Your task to perform on an android device: Search for the best rated headphones on amazon.com Image 0: 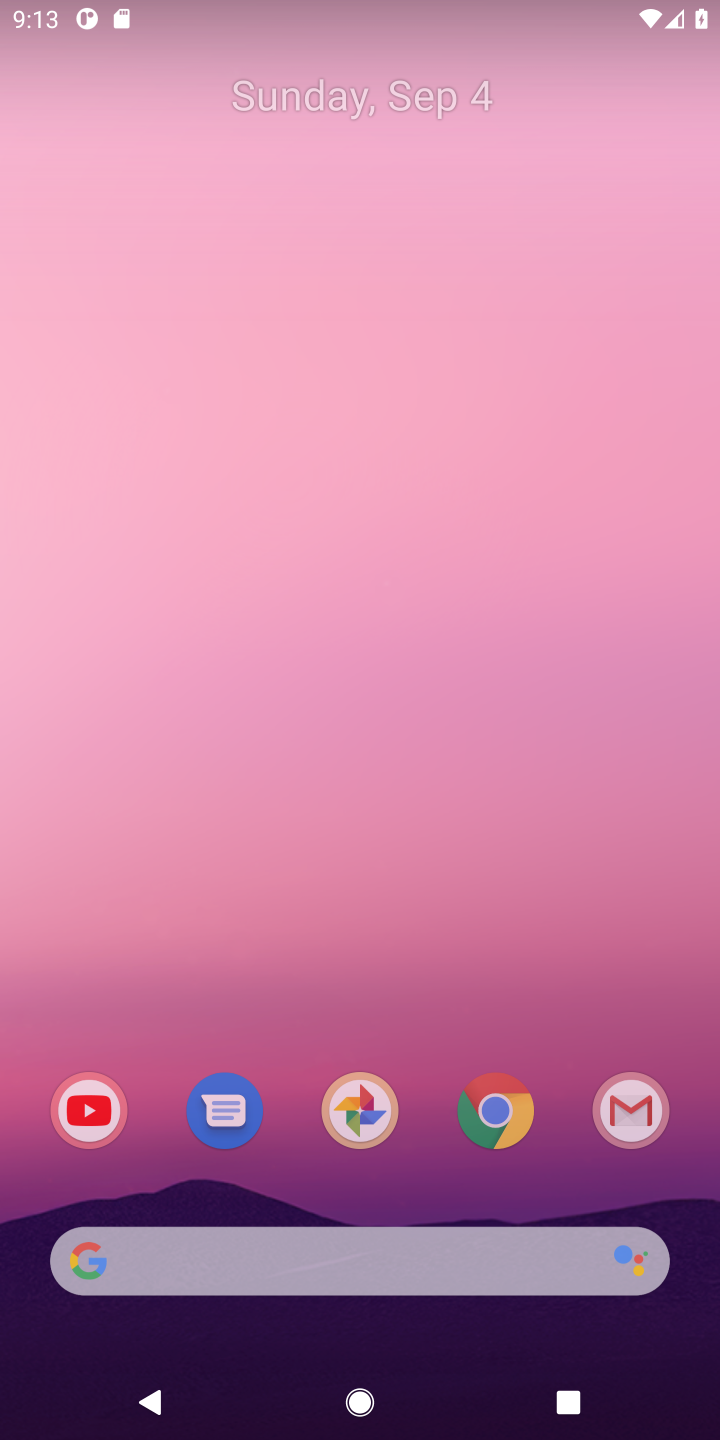
Step 0: press home button
Your task to perform on an android device: Search for the best rated headphones on amazon.com Image 1: 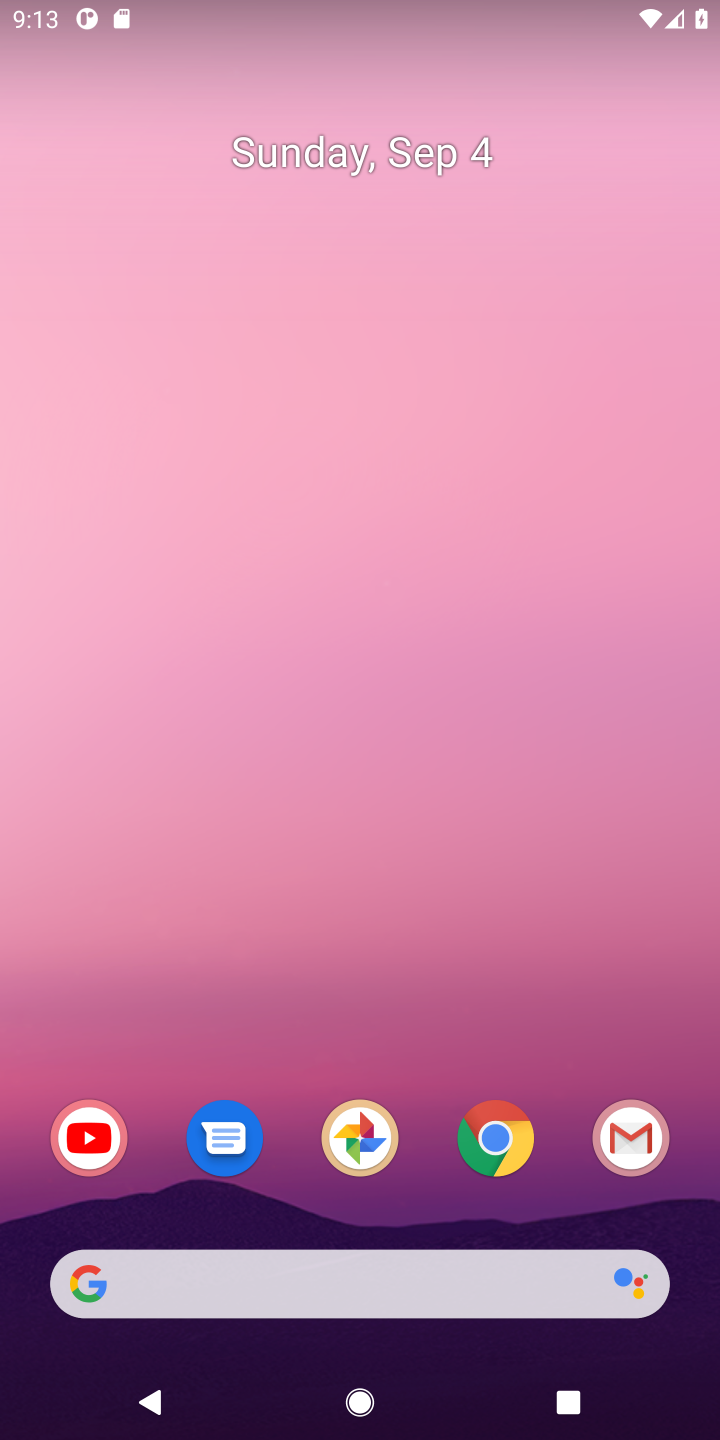
Step 1: drag from (461, 600) to (484, 67)
Your task to perform on an android device: Search for the best rated headphones on amazon.com Image 2: 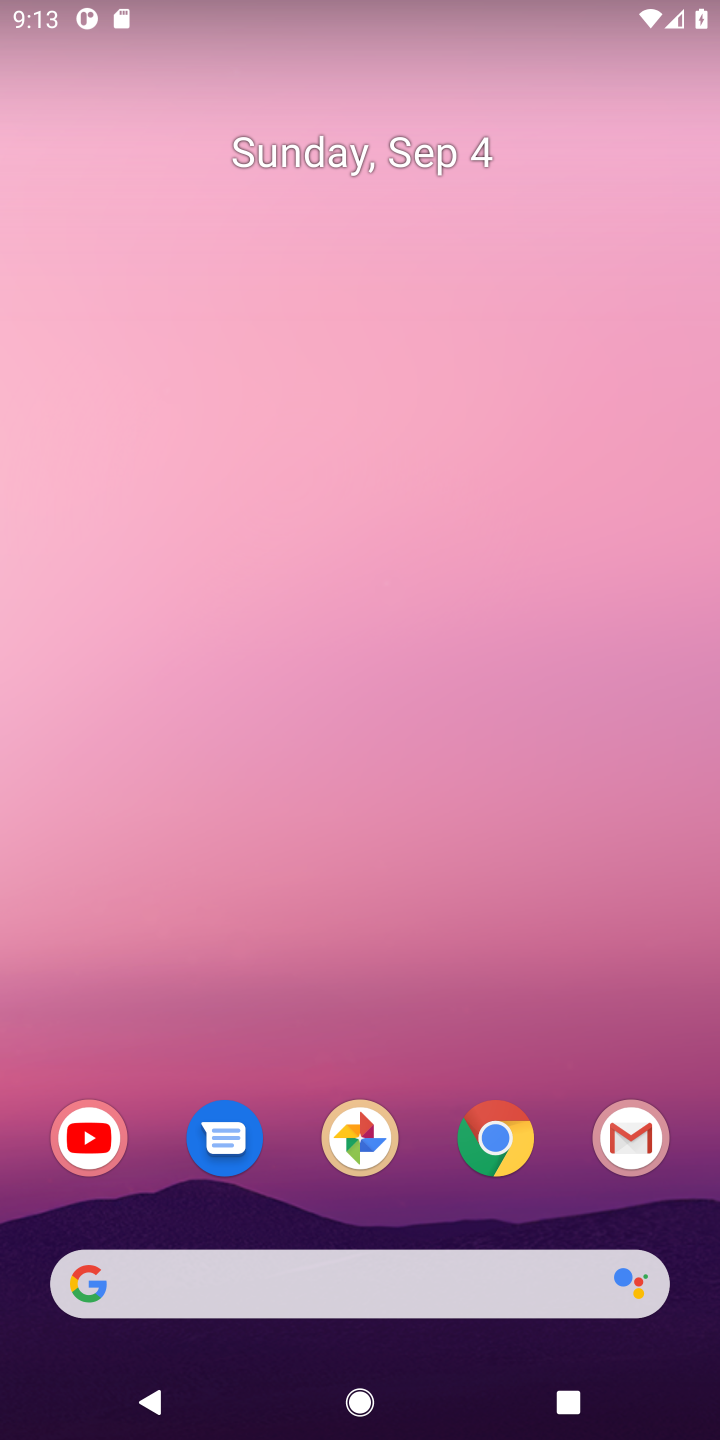
Step 2: drag from (421, 1112) to (499, 66)
Your task to perform on an android device: Search for the best rated headphones on amazon.com Image 3: 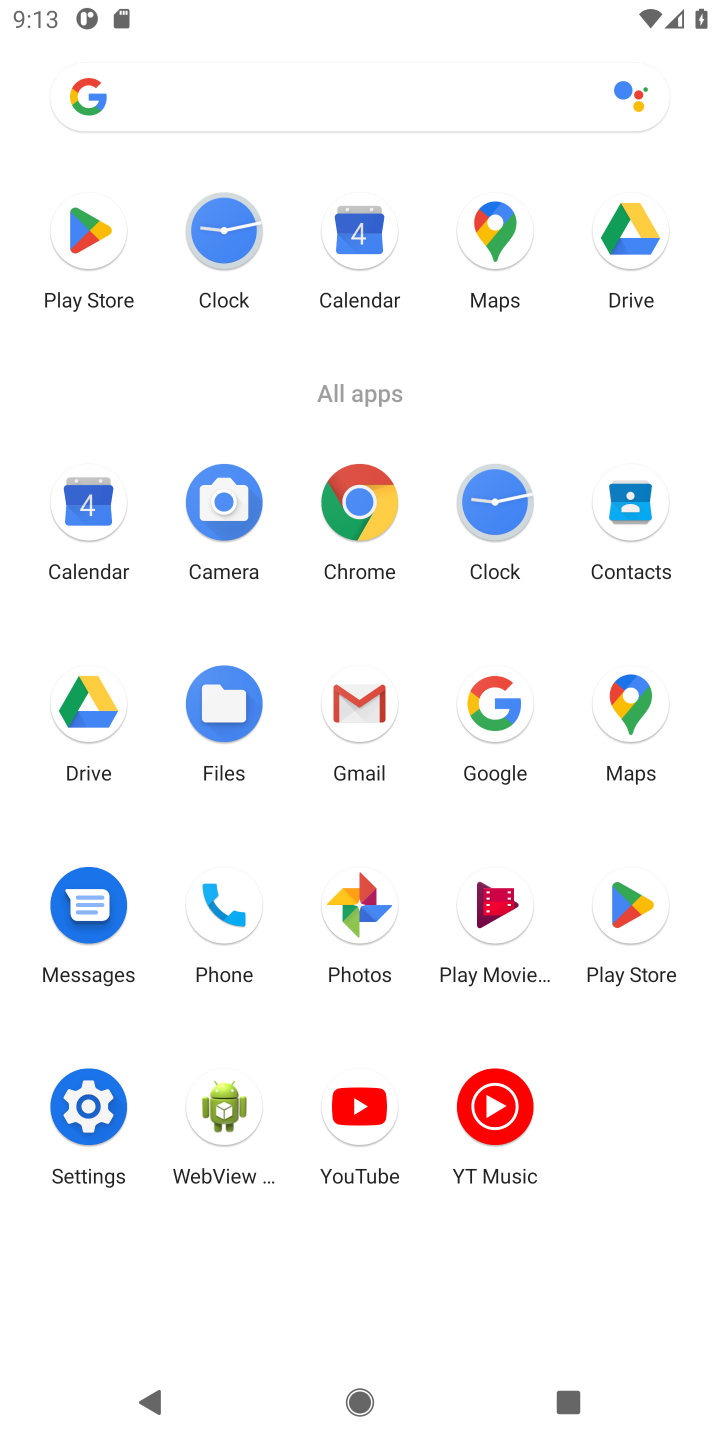
Step 3: click (369, 494)
Your task to perform on an android device: Search for the best rated headphones on amazon.com Image 4: 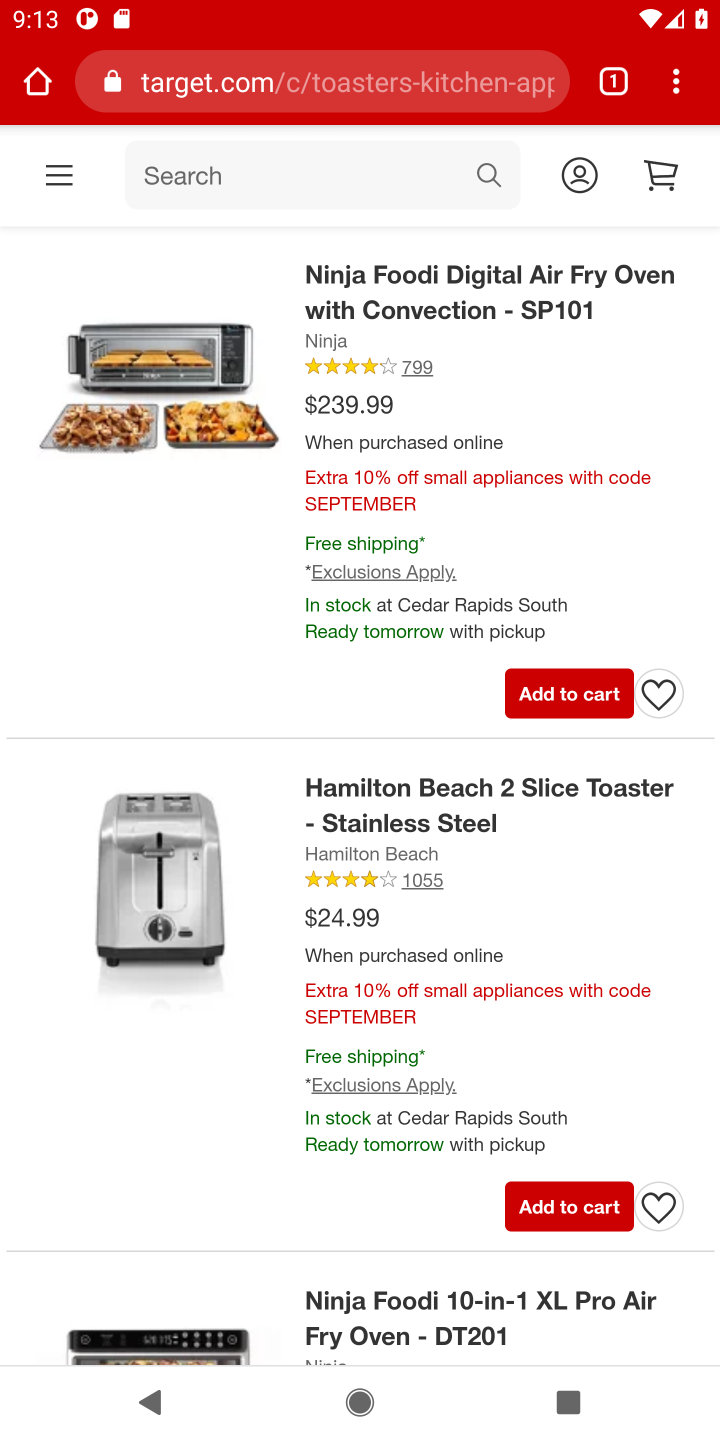
Step 4: click (620, 74)
Your task to perform on an android device: Search for the best rated headphones on amazon.com Image 5: 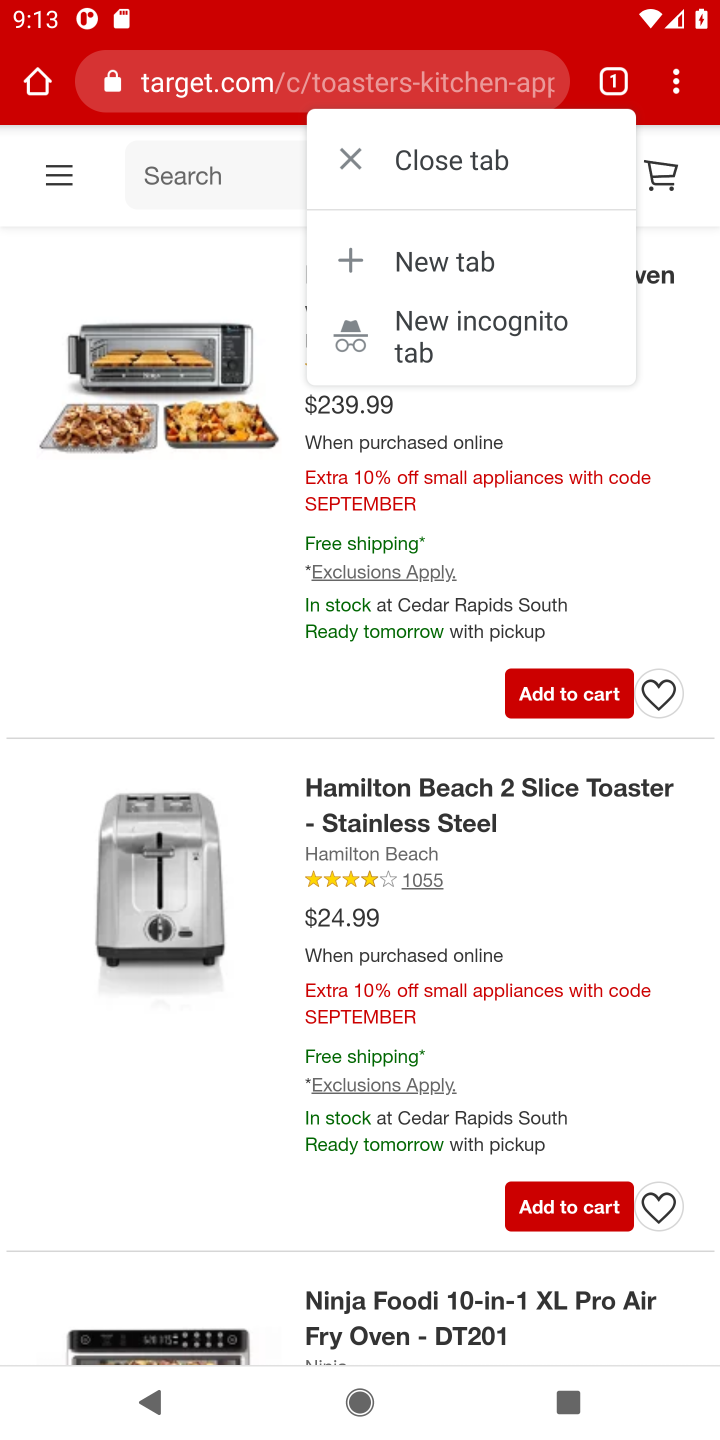
Step 5: click (383, 164)
Your task to perform on an android device: Search for the best rated headphones on amazon.com Image 6: 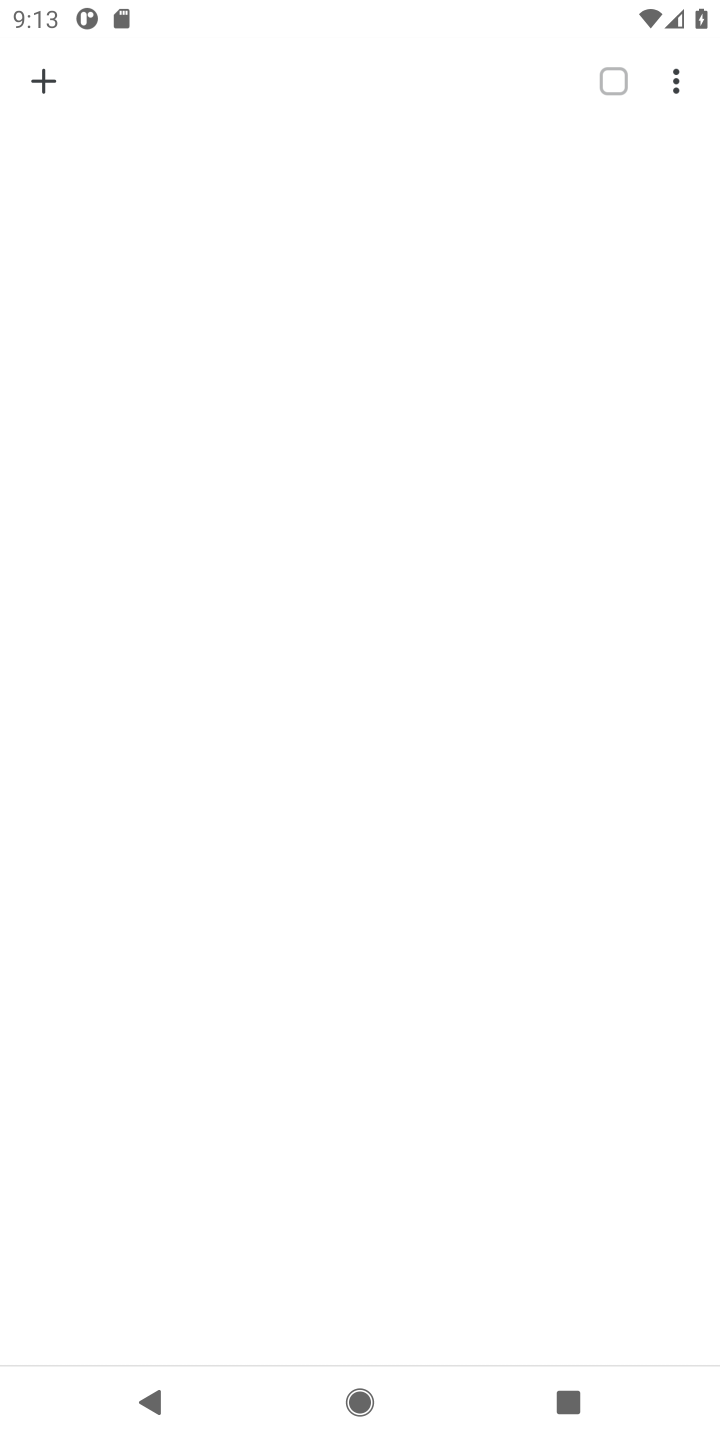
Step 6: click (47, 81)
Your task to perform on an android device: Search for the best rated headphones on amazon.com Image 7: 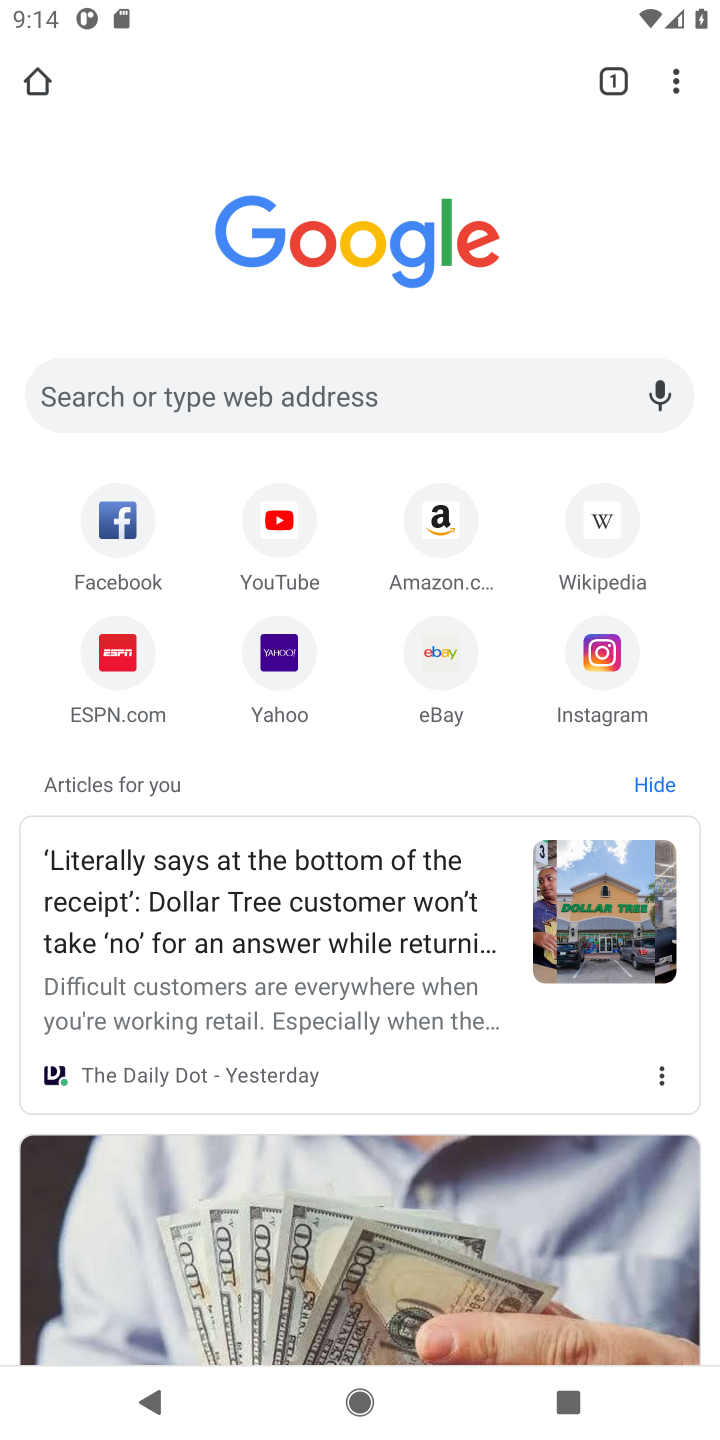
Step 7: click (195, 393)
Your task to perform on an android device: Search for the best rated headphones on amazon.com Image 8: 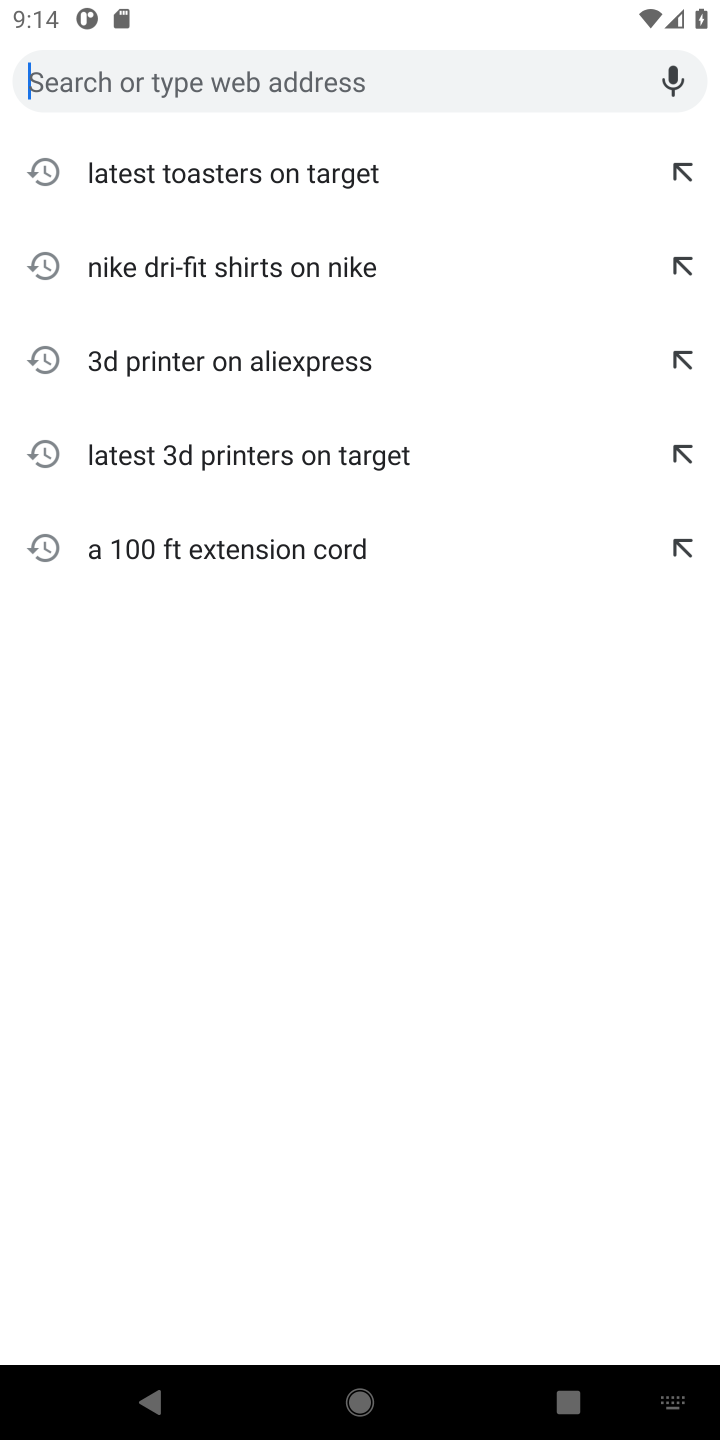
Step 8: type "best rated headphones on amazon.com"
Your task to perform on an android device: Search for the best rated headphones on amazon.com Image 9: 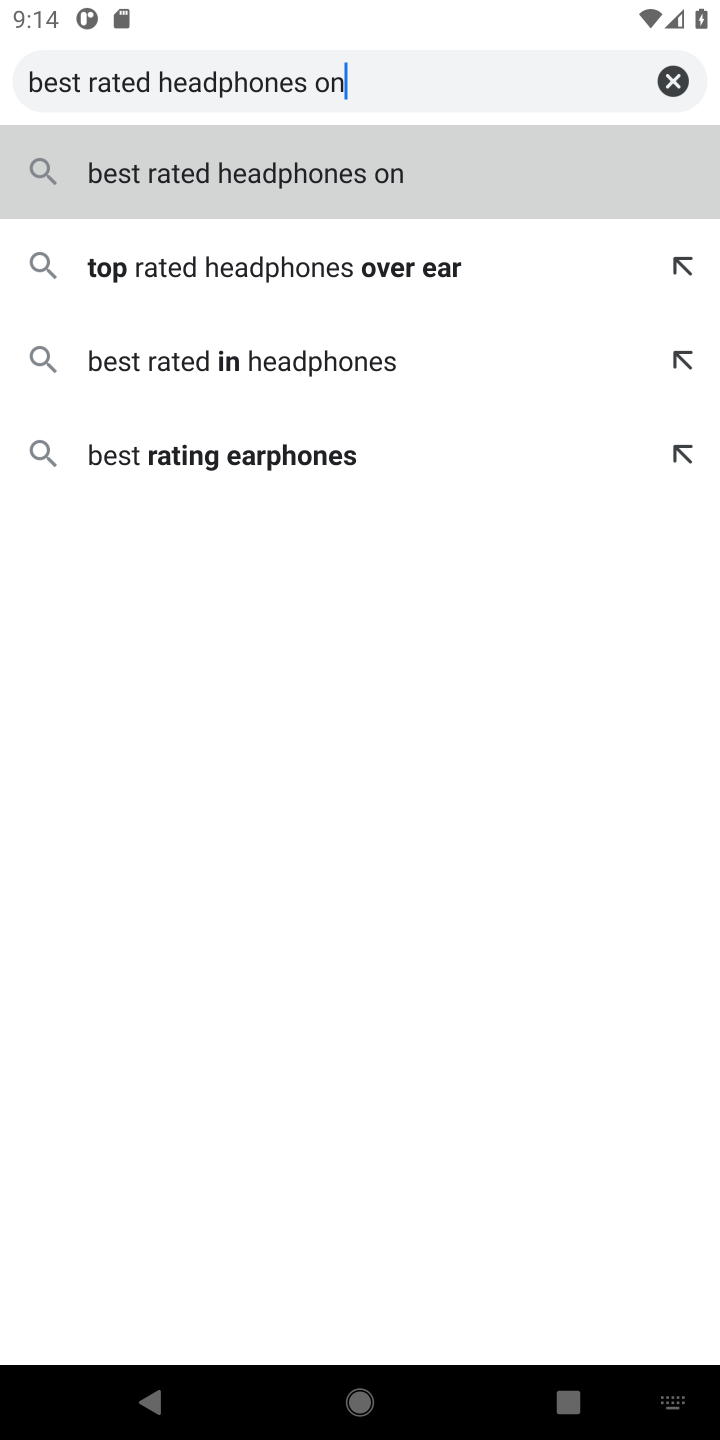
Step 9: type " amazon.com"
Your task to perform on an android device: Search for the best rated headphones on amazon.com Image 10: 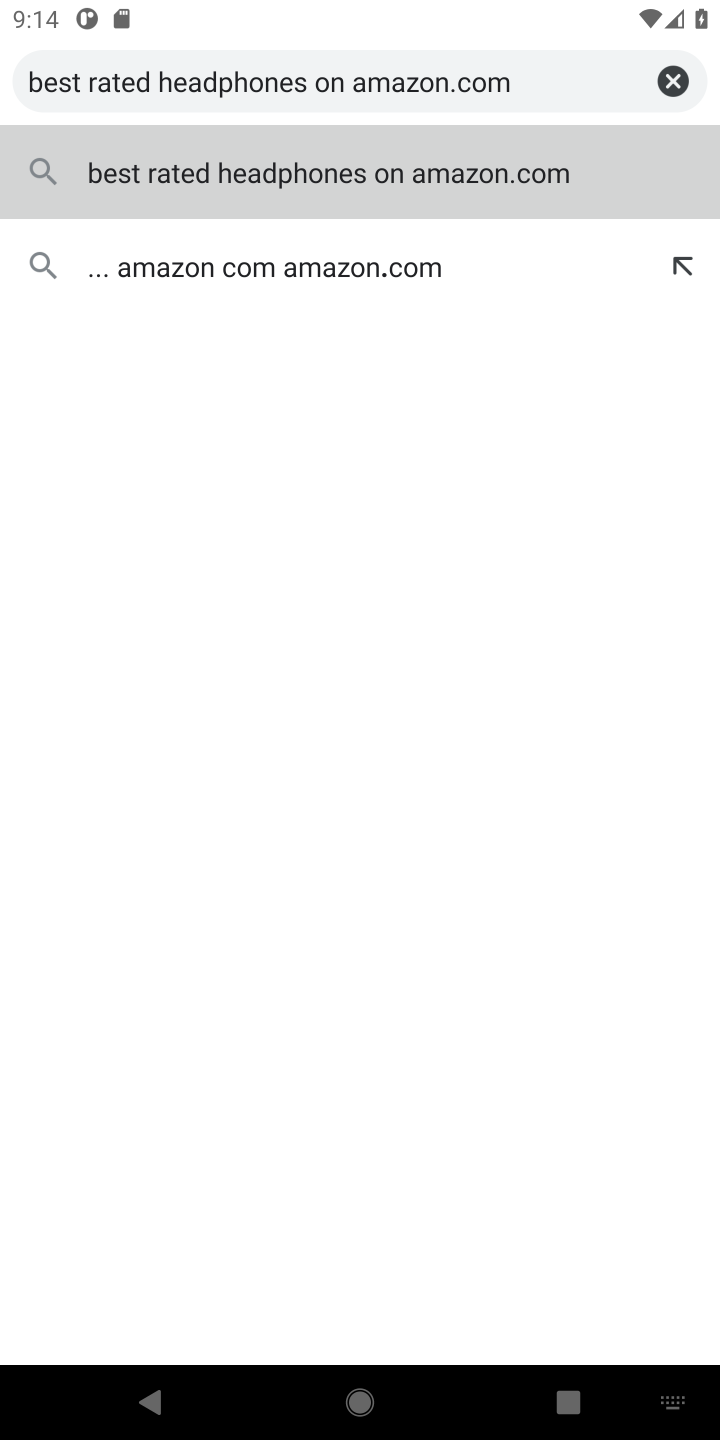
Step 10: click (317, 184)
Your task to perform on an android device: Search for the best rated headphones on amazon.com Image 11: 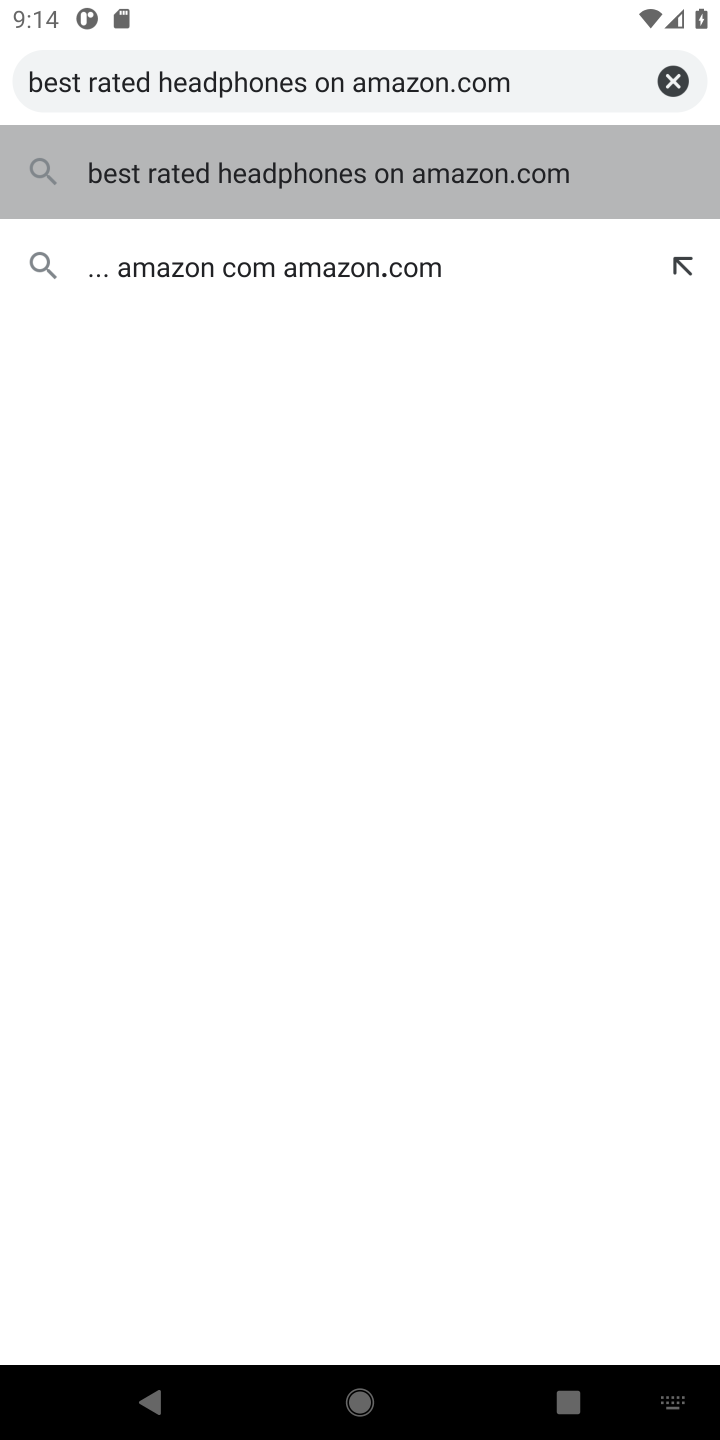
Step 11: click (353, 185)
Your task to perform on an android device: Search for the best rated headphones on amazon.com Image 12: 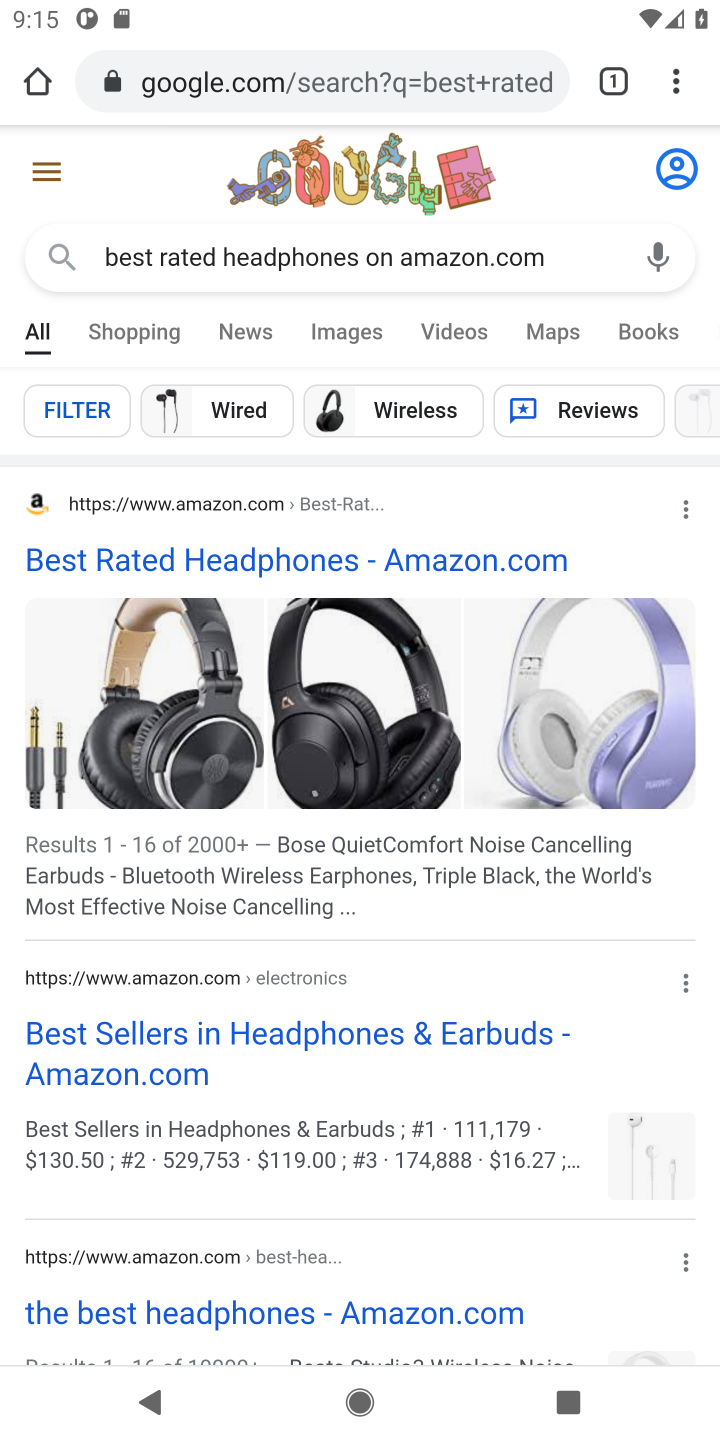
Step 12: click (254, 565)
Your task to perform on an android device: Search for the best rated headphones on amazon.com Image 13: 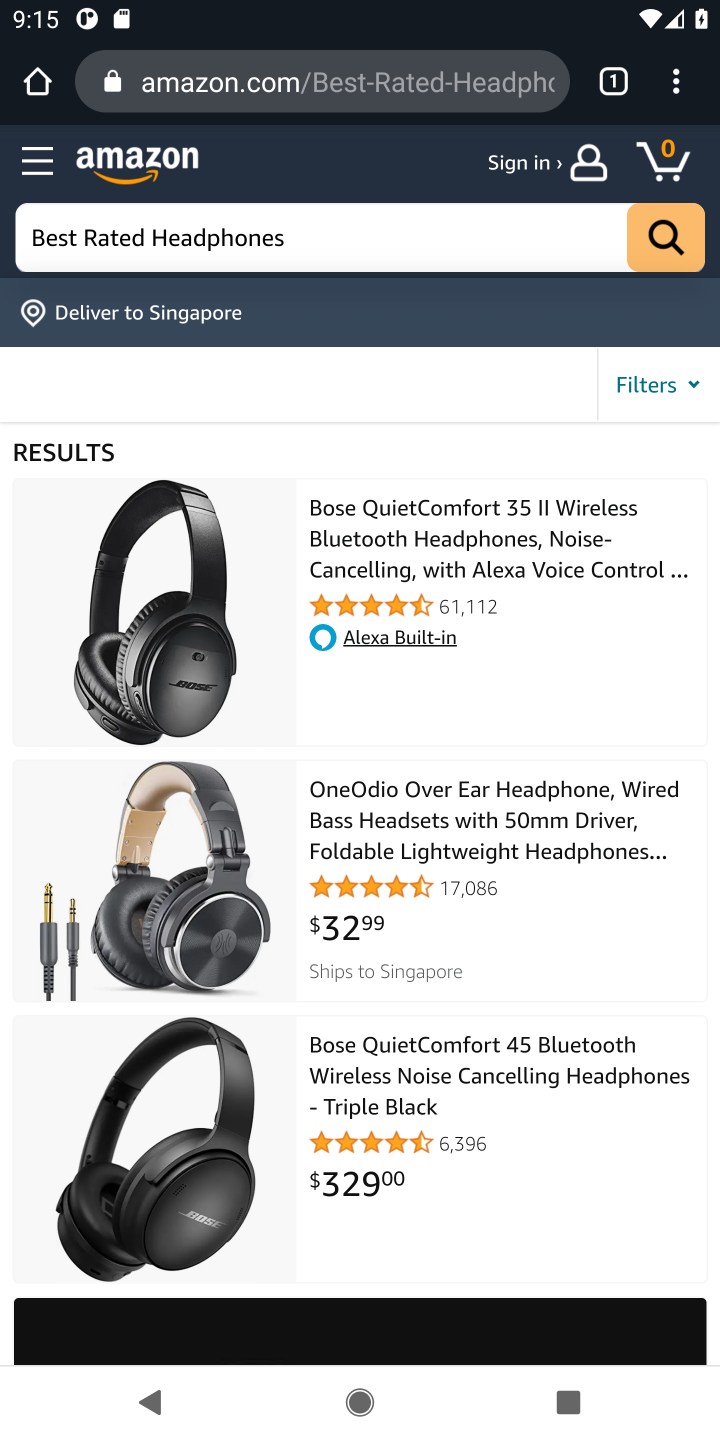
Step 13: drag from (260, 1165) to (205, 623)
Your task to perform on an android device: Search for the best rated headphones on amazon.com Image 14: 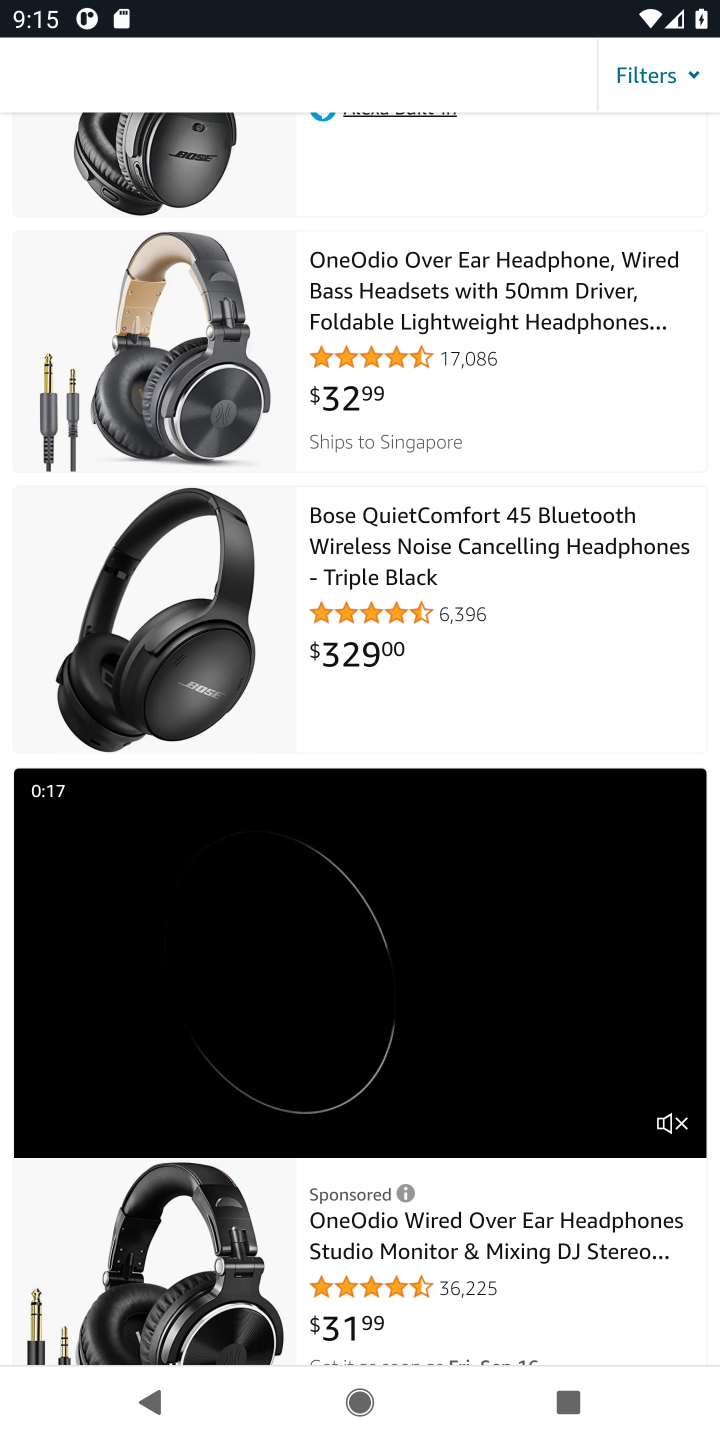
Step 14: drag from (407, 1174) to (343, 921)
Your task to perform on an android device: Search for the best rated headphones on amazon.com Image 15: 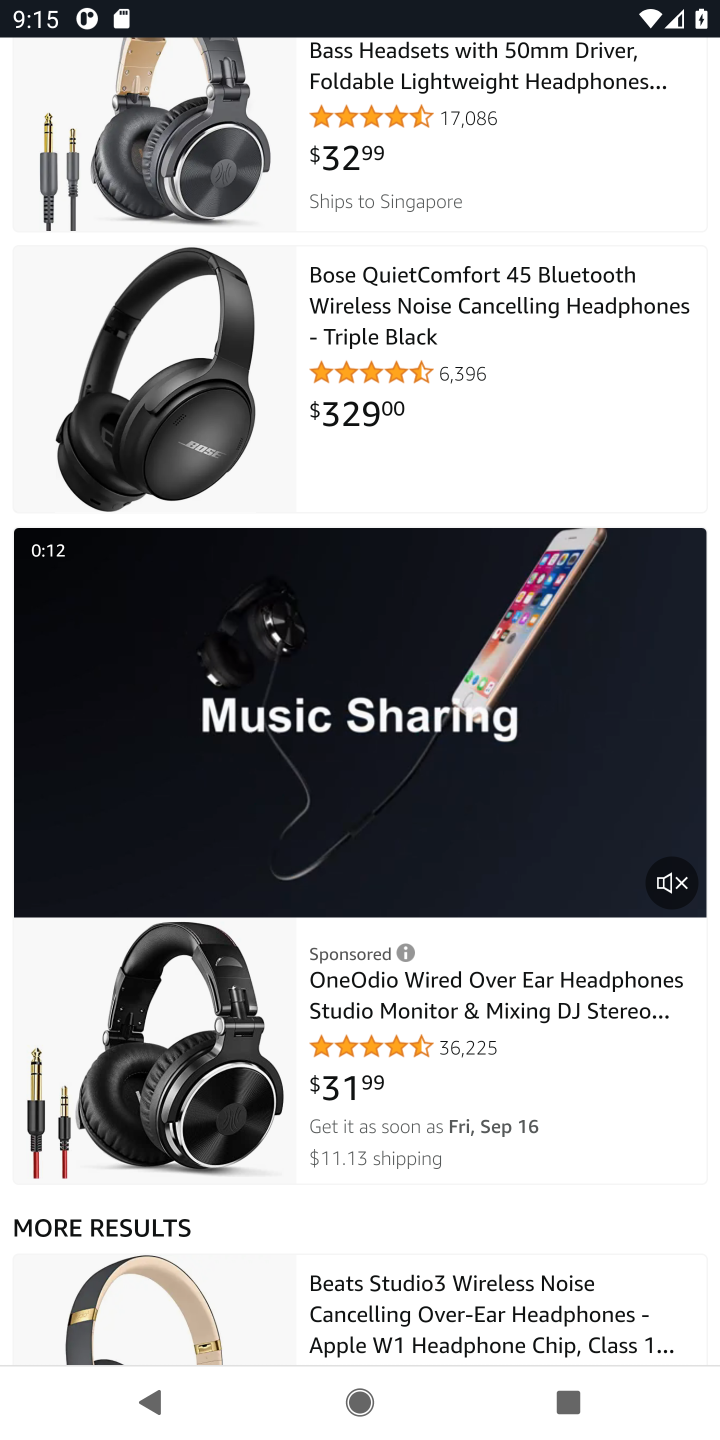
Step 15: drag from (201, 1065) to (168, 865)
Your task to perform on an android device: Search for the best rated headphones on amazon.com Image 16: 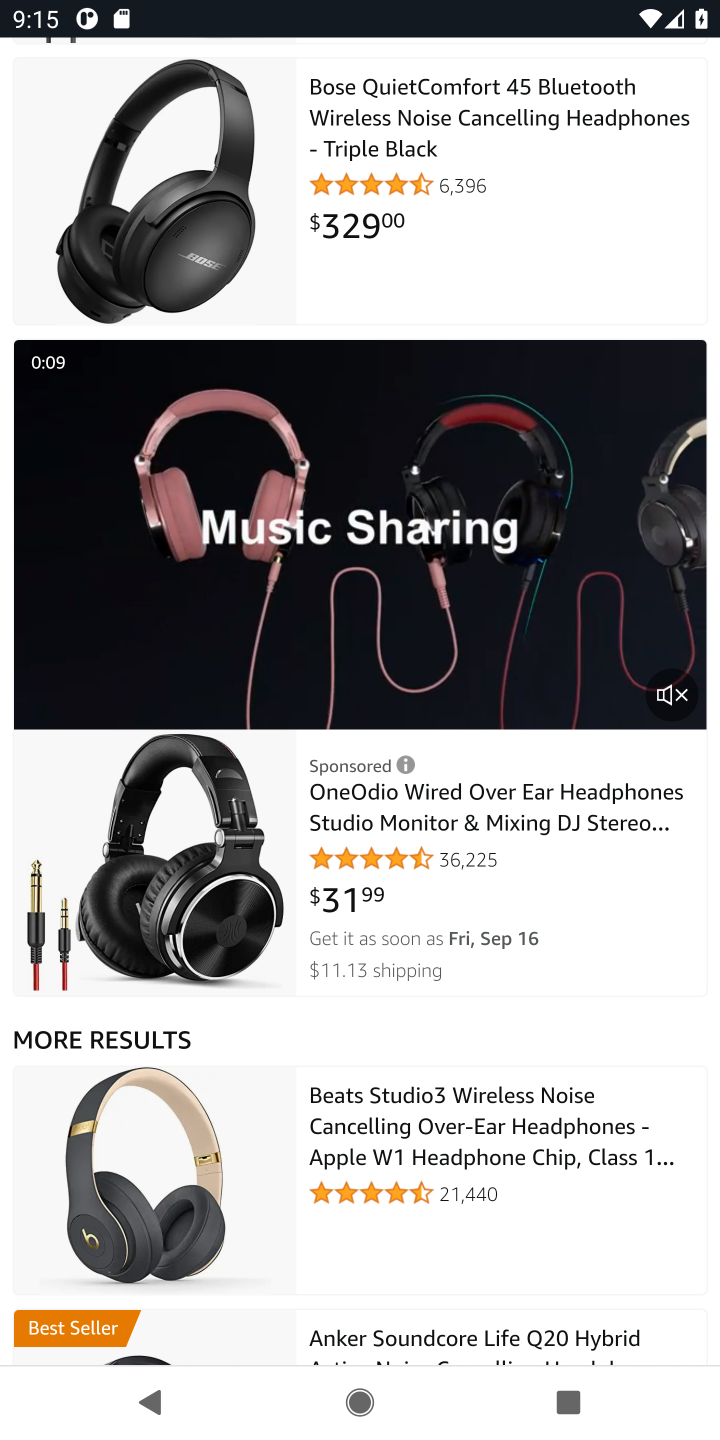
Step 16: drag from (274, 1266) to (140, 701)
Your task to perform on an android device: Search for the best rated headphones on amazon.com Image 17: 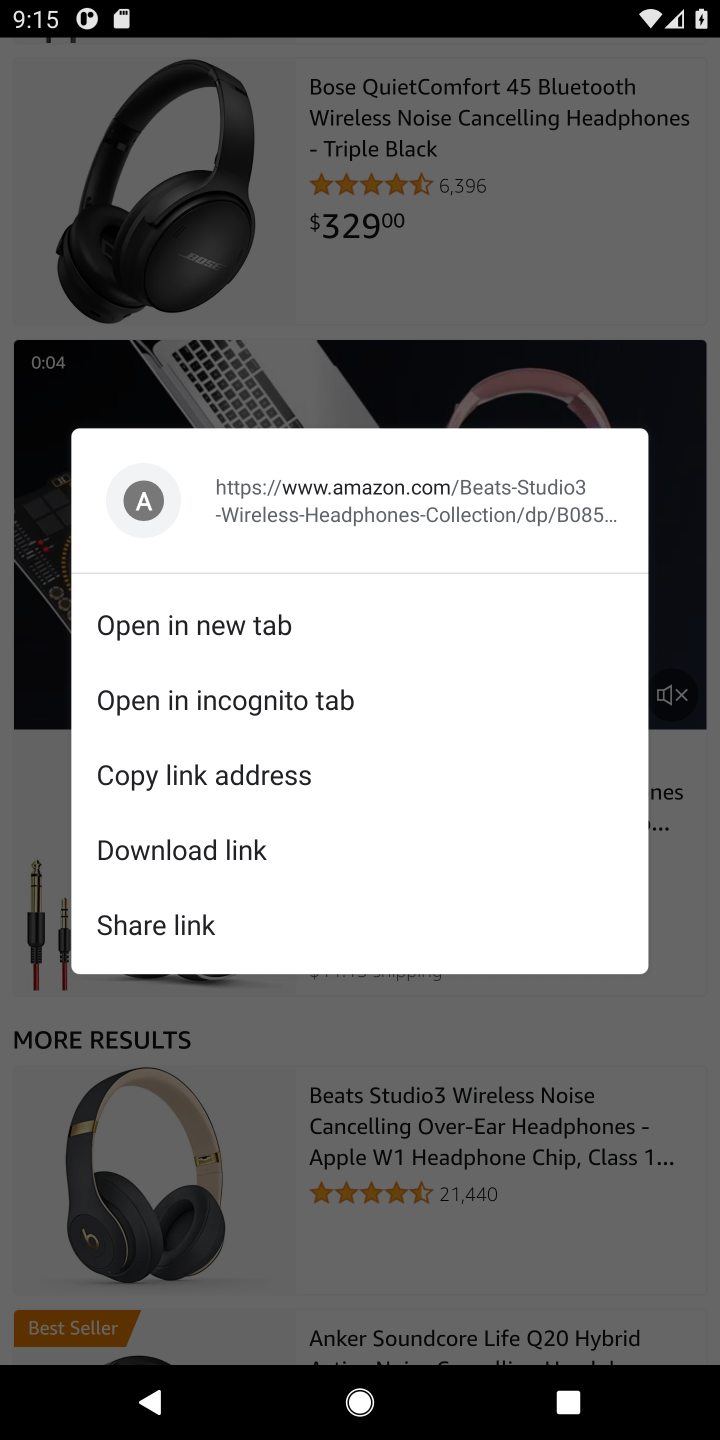
Step 17: click (273, 1166)
Your task to perform on an android device: Search for the best rated headphones on amazon.com Image 18: 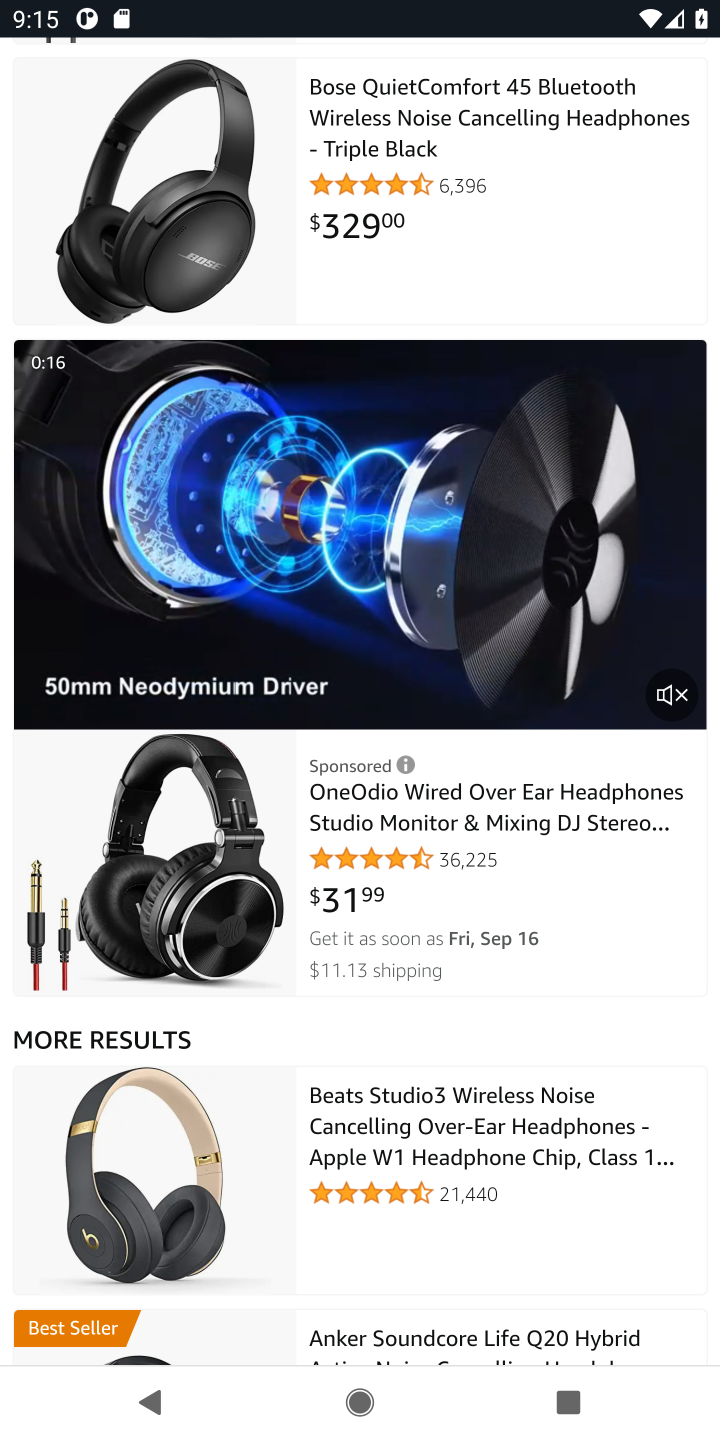
Step 18: drag from (301, 1275) to (186, 771)
Your task to perform on an android device: Search for the best rated headphones on amazon.com Image 19: 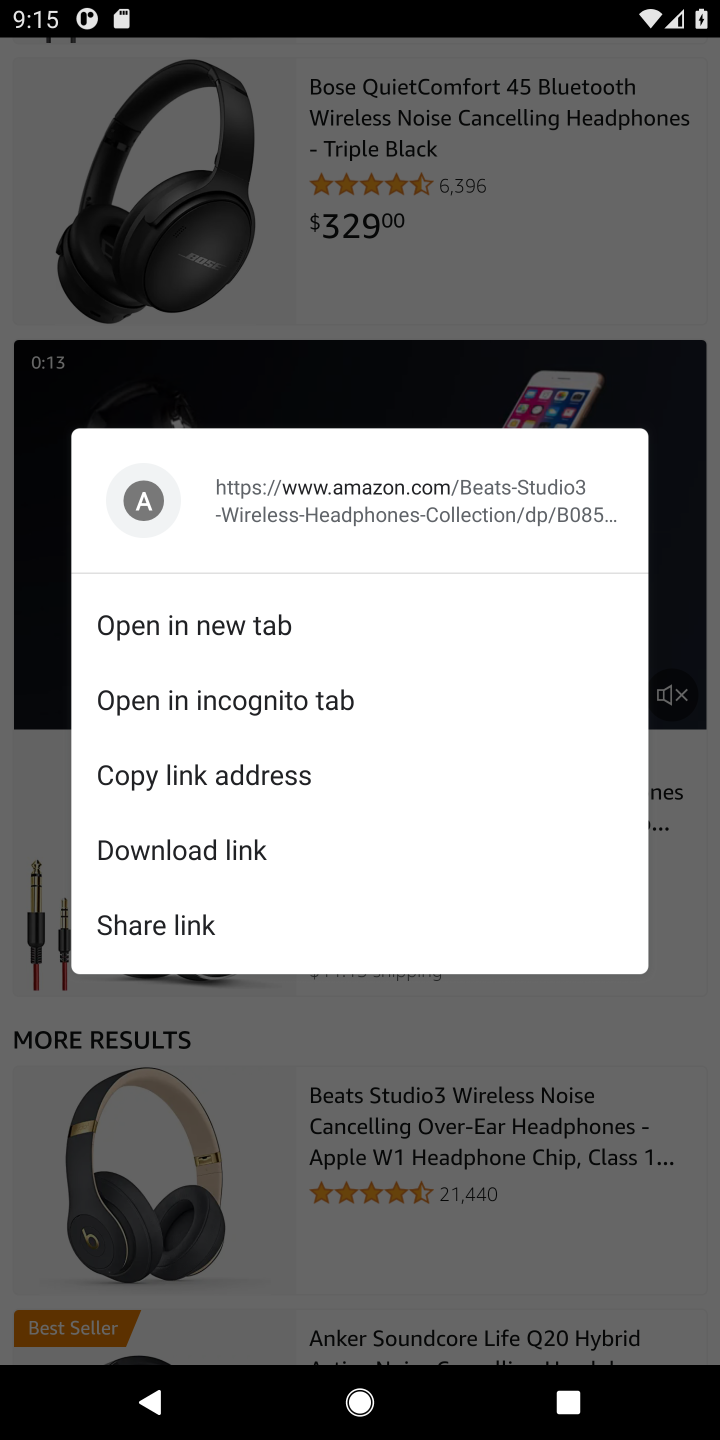
Step 19: click (292, 1191)
Your task to perform on an android device: Search for the best rated headphones on amazon.com Image 20: 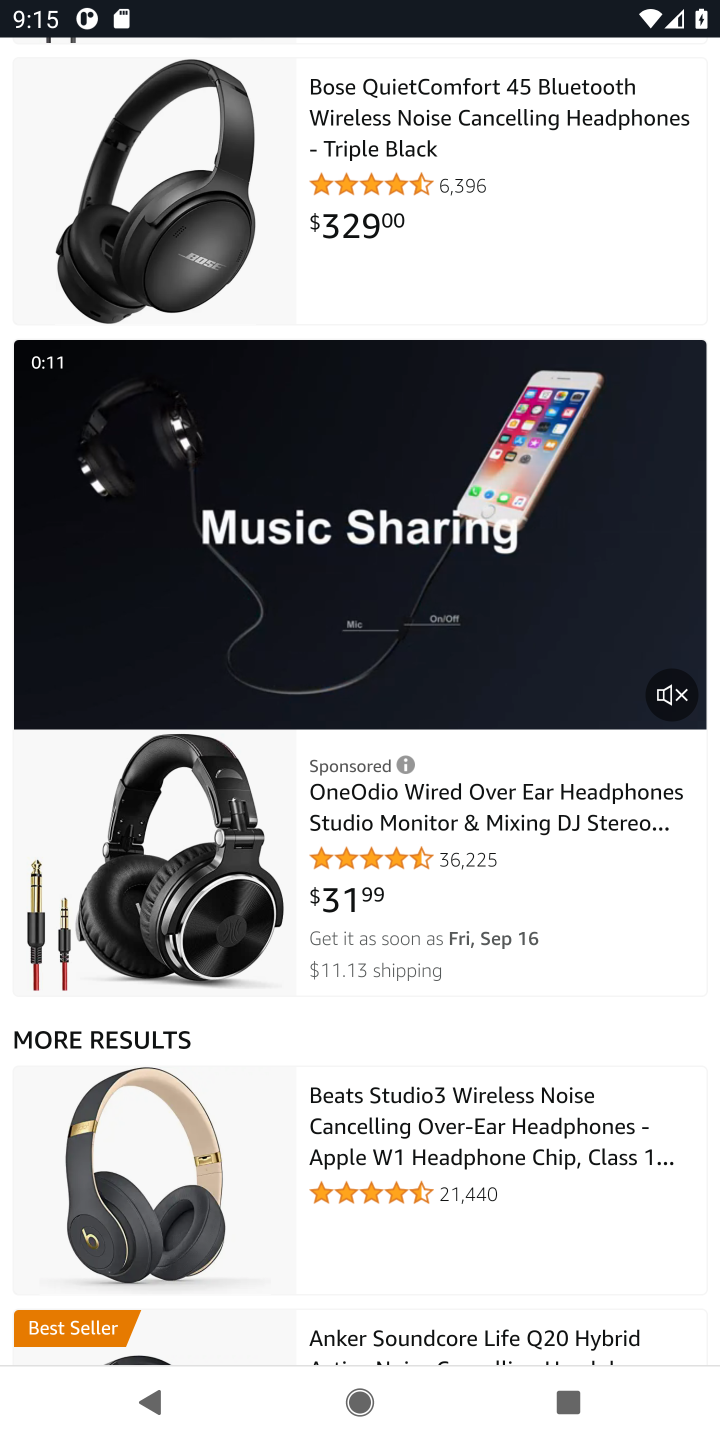
Step 20: task complete